Your task to perform on an android device: turn on notifications settings in the gmail app Image 0: 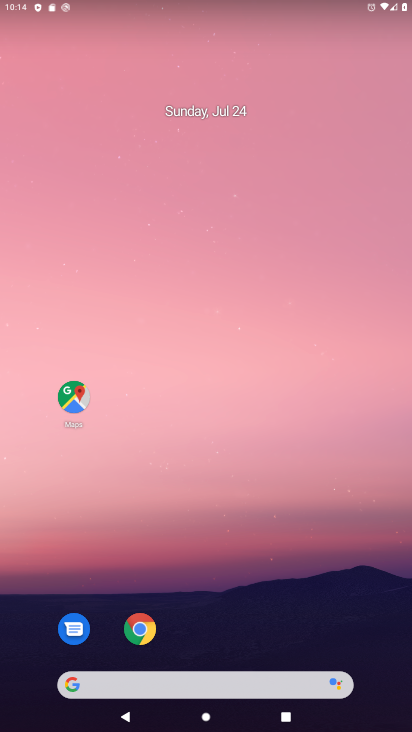
Step 0: drag from (176, 683) to (252, 90)
Your task to perform on an android device: turn on notifications settings in the gmail app Image 1: 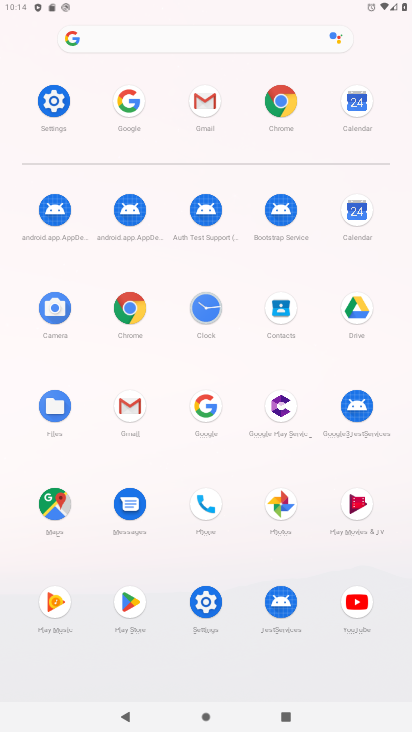
Step 1: click (204, 101)
Your task to perform on an android device: turn on notifications settings in the gmail app Image 2: 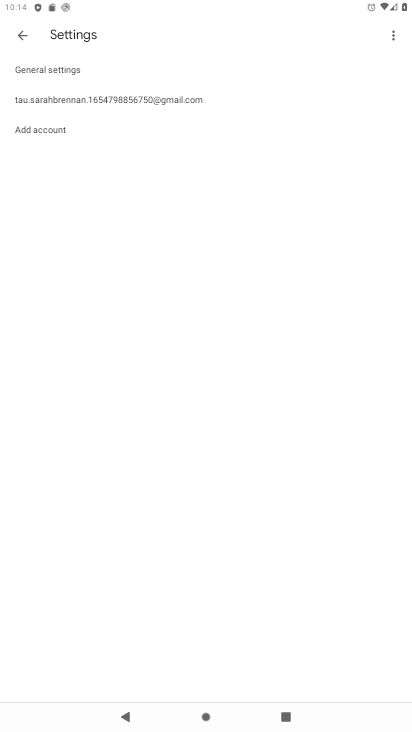
Step 2: click (189, 102)
Your task to perform on an android device: turn on notifications settings in the gmail app Image 3: 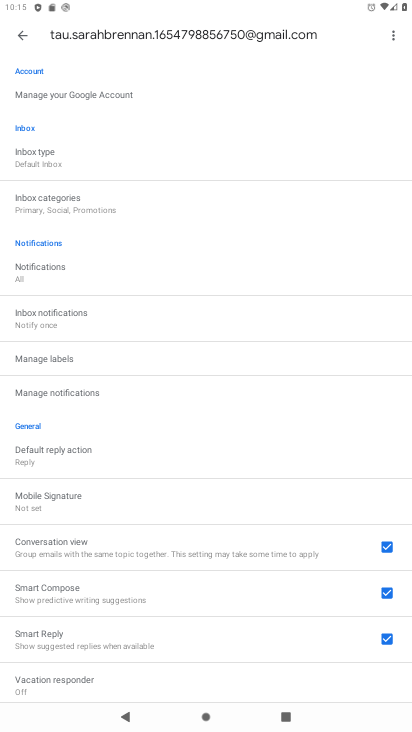
Step 3: click (40, 393)
Your task to perform on an android device: turn on notifications settings in the gmail app Image 4: 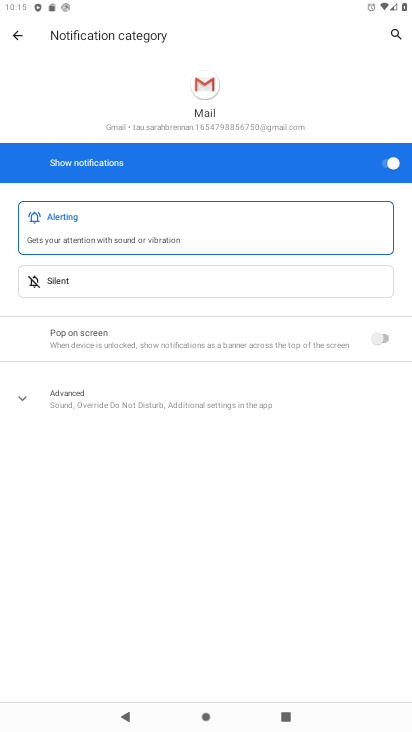
Step 4: task complete